Your task to perform on an android device: Search for seafood restaurants on Google Maps Image 0: 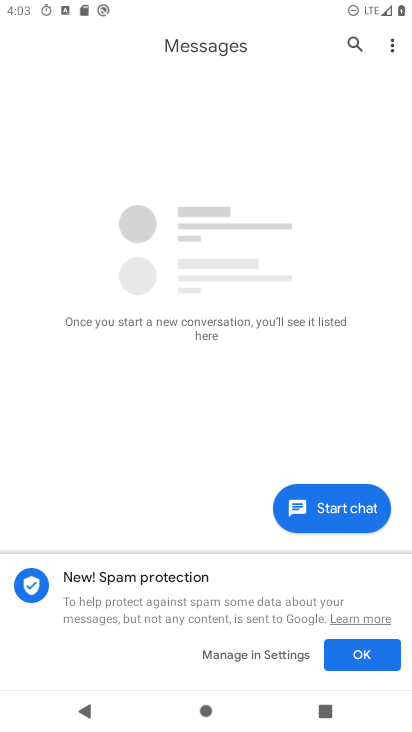
Step 0: press home button
Your task to perform on an android device: Search for seafood restaurants on Google Maps Image 1: 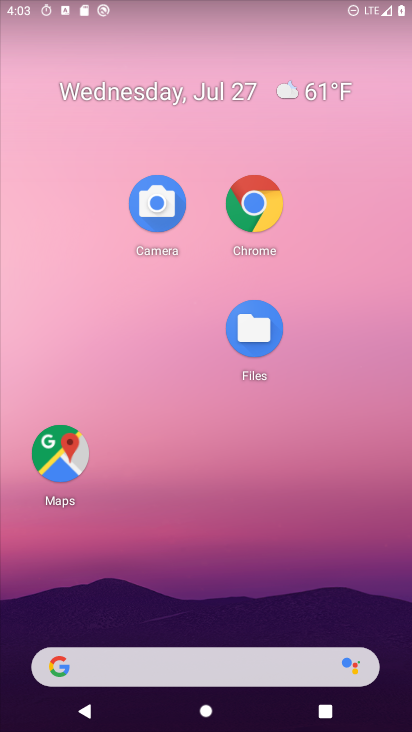
Step 1: click (40, 462)
Your task to perform on an android device: Search for seafood restaurants on Google Maps Image 2: 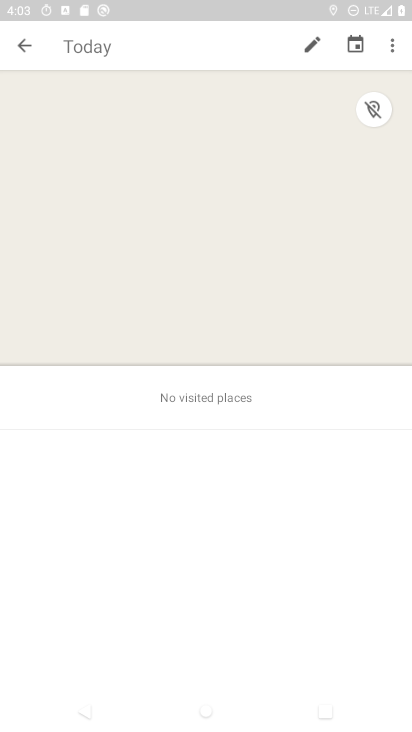
Step 2: click (25, 46)
Your task to perform on an android device: Search for seafood restaurants on Google Maps Image 3: 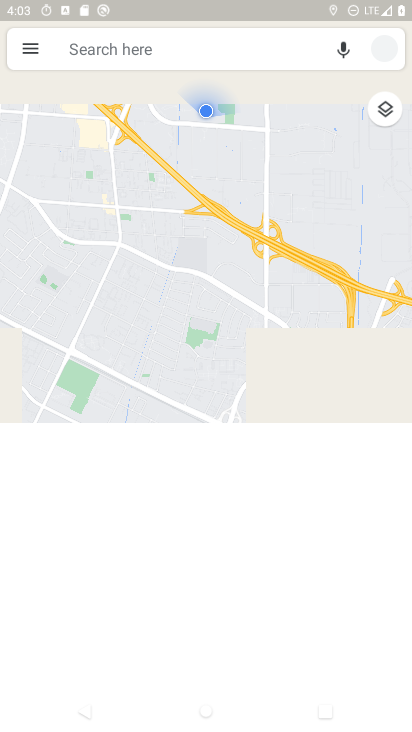
Step 3: click (199, 45)
Your task to perform on an android device: Search for seafood restaurants on Google Maps Image 4: 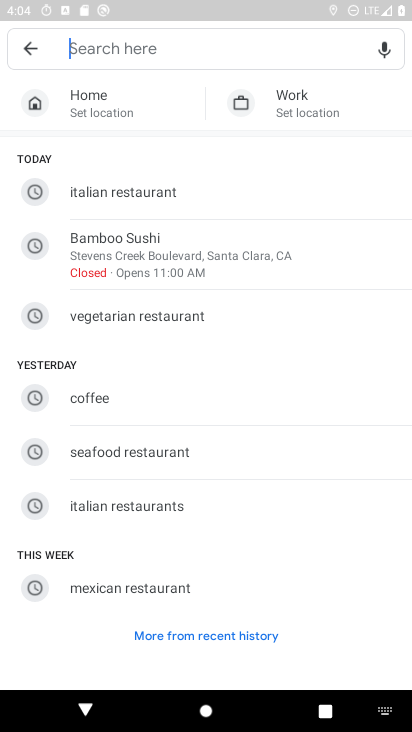
Step 4: type "seafood restaurants"
Your task to perform on an android device: Search for seafood restaurants on Google Maps Image 5: 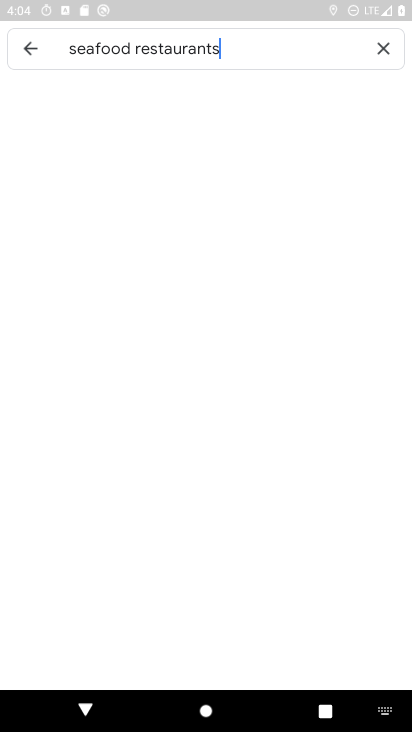
Step 5: type ""
Your task to perform on an android device: Search for seafood restaurants on Google Maps Image 6: 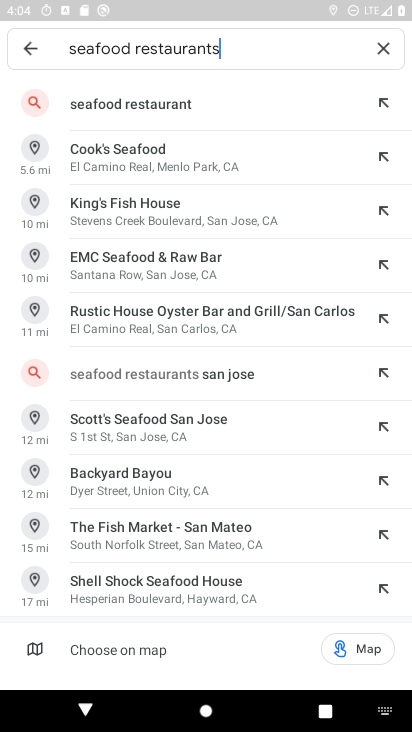
Step 6: click (158, 108)
Your task to perform on an android device: Search for seafood restaurants on Google Maps Image 7: 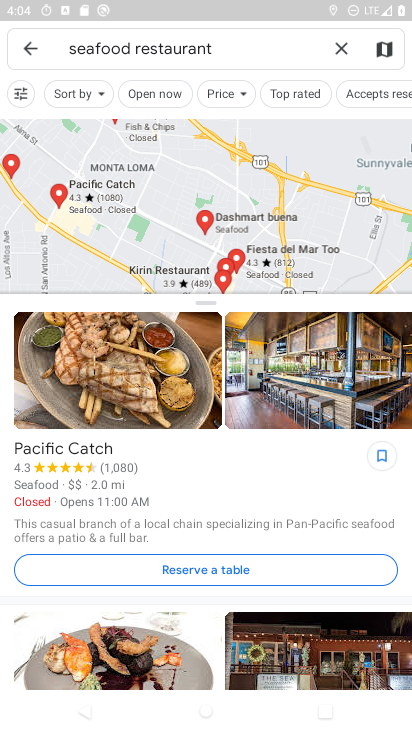
Step 7: task complete